Your task to perform on an android device: uninstall "eBay: The shopping marketplace" Image 0: 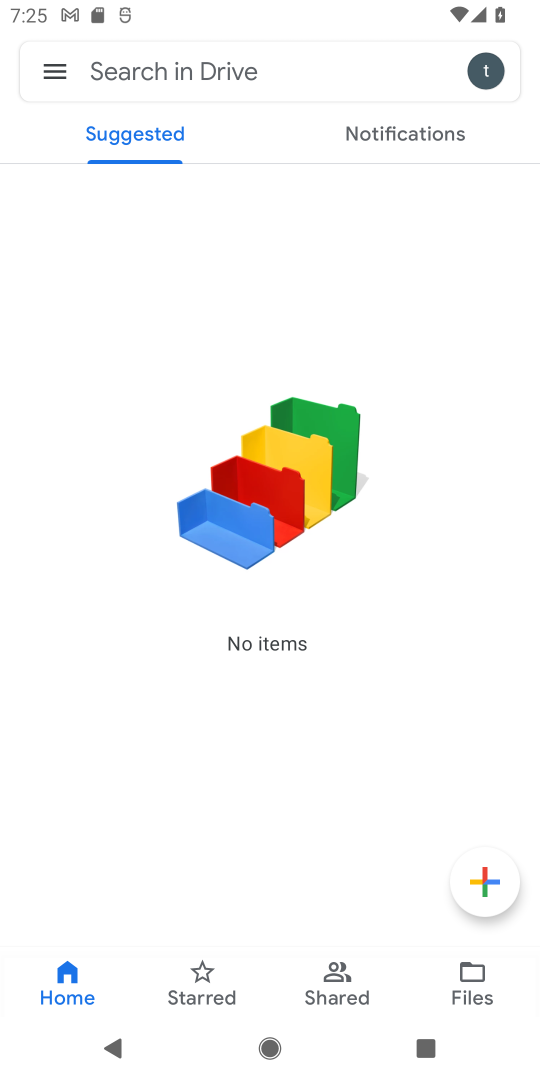
Step 0: press home button
Your task to perform on an android device: uninstall "eBay: The shopping marketplace" Image 1: 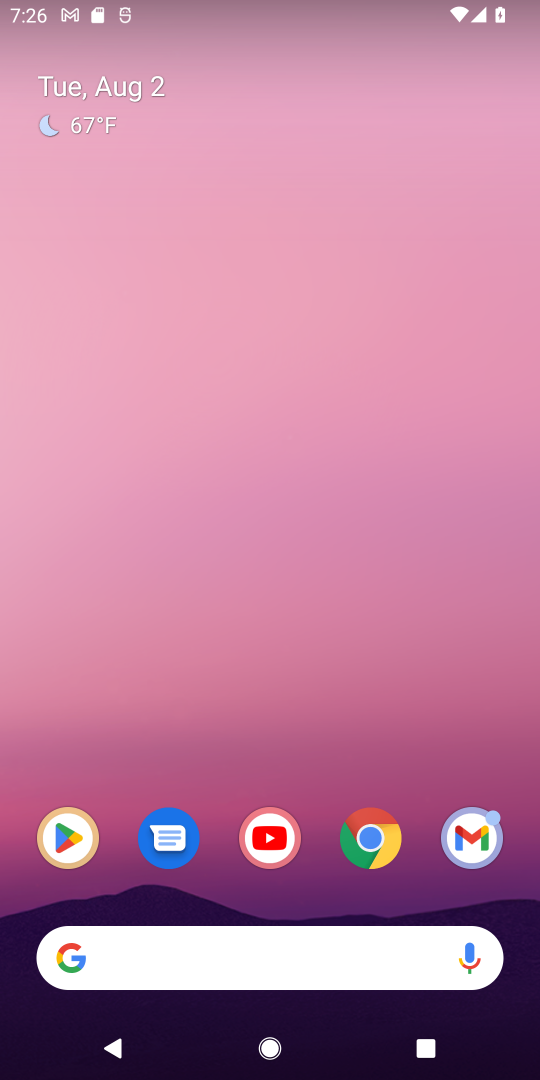
Step 1: click (88, 832)
Your task to perform on an android device: uninstall "eBay: The shopping marketplace" Image 2: 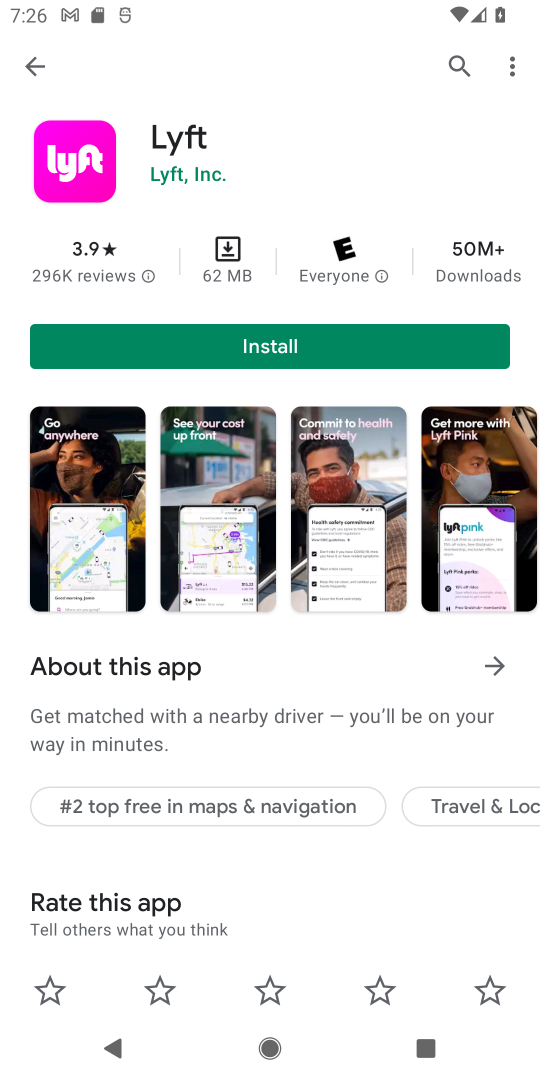
Step 2: click (464, 70)
Your task to perform on an android device: uninstall "eBay: The shopping marketplace" Image 3: 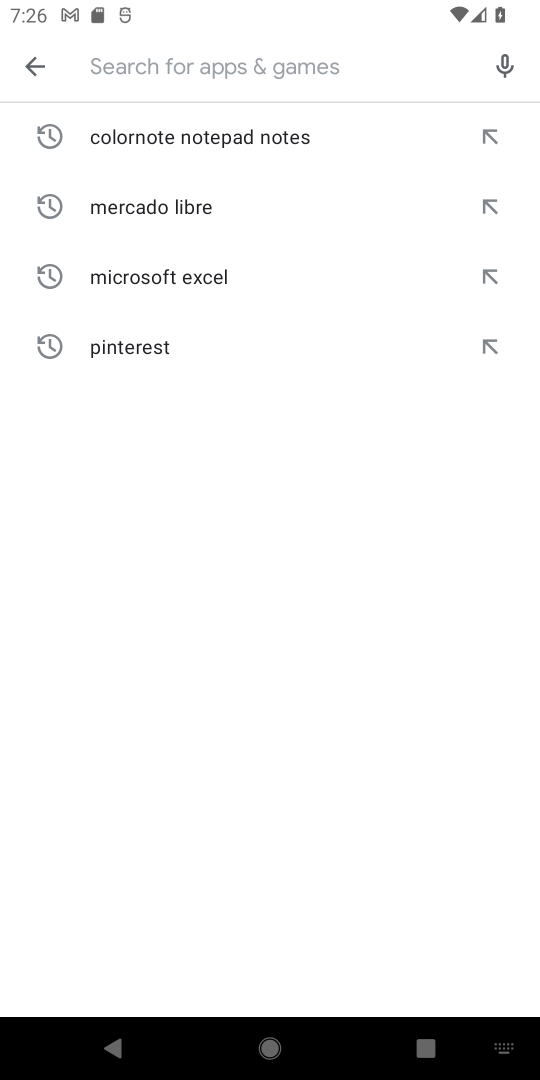
Step 3: type "ebay: the shopping marketplace"
Your task to perform on an android device: uninstall "eBay: The shopping marketplace" Image 4: 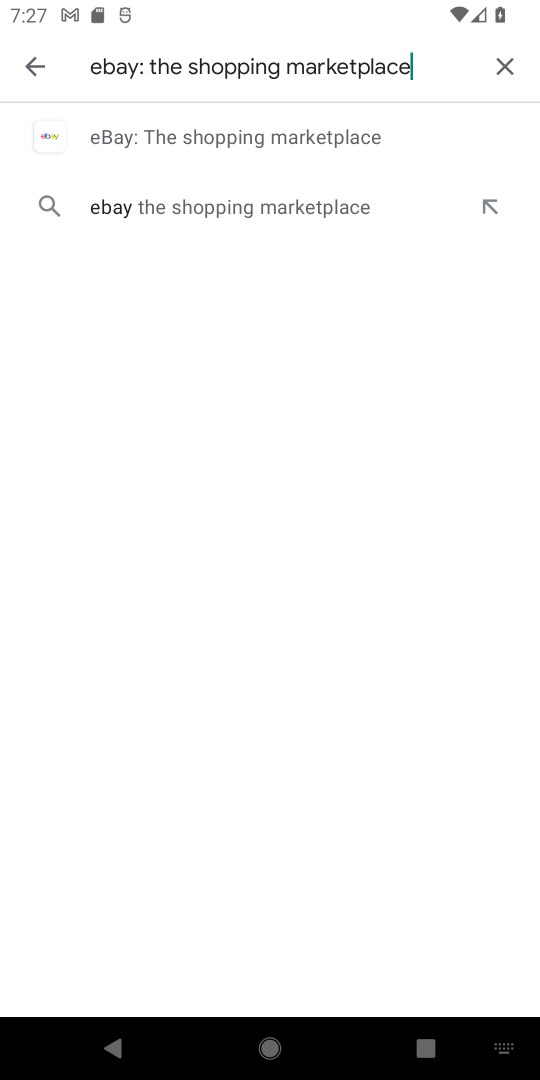
Step 4: click (240, 134)
Your task to perform on an android device: uninstall "eBay: The shopping marketplace" Image 5: 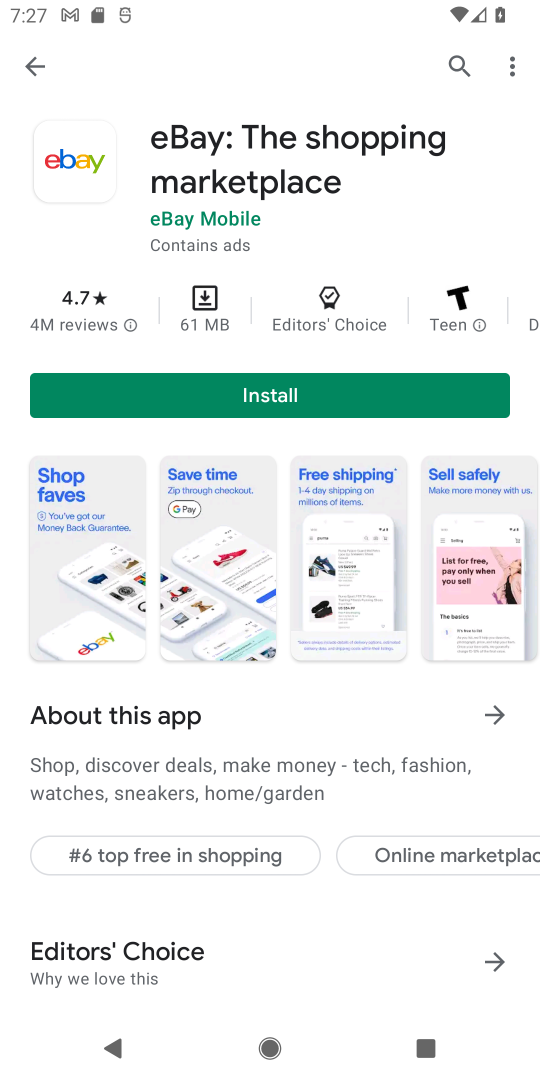
Step 5: task complete